Your task to perform on an android device: When is my next appointment? Image 0: 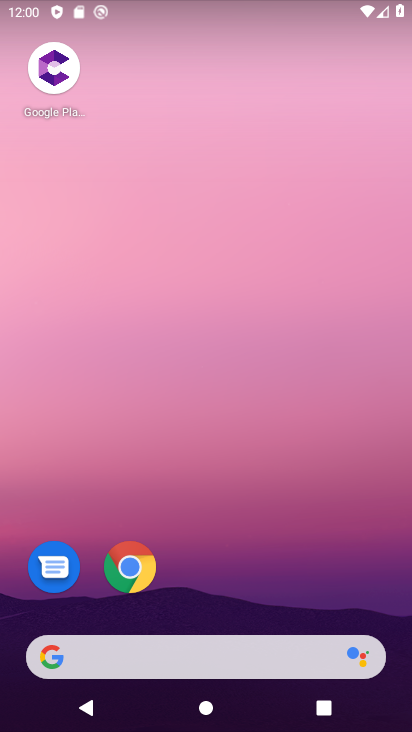
Step 0: drag from (207, 611) to (232, 195)
Your task to perform on an android device: When is my next appointment? Image 1: 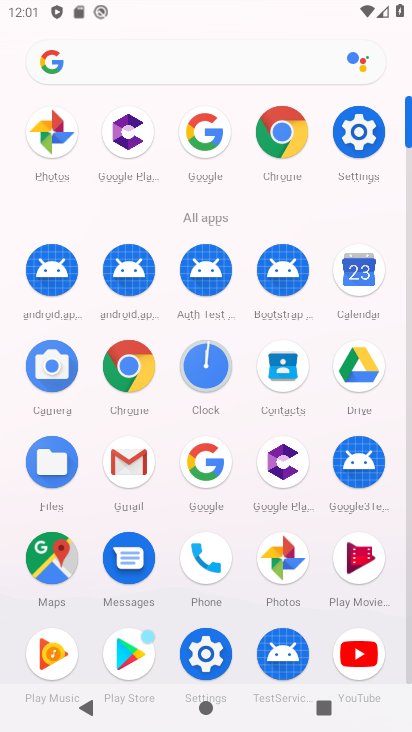
Step 1: click (341, 272)
Your task to perform on an android device: When is my next appointment? Image 2: 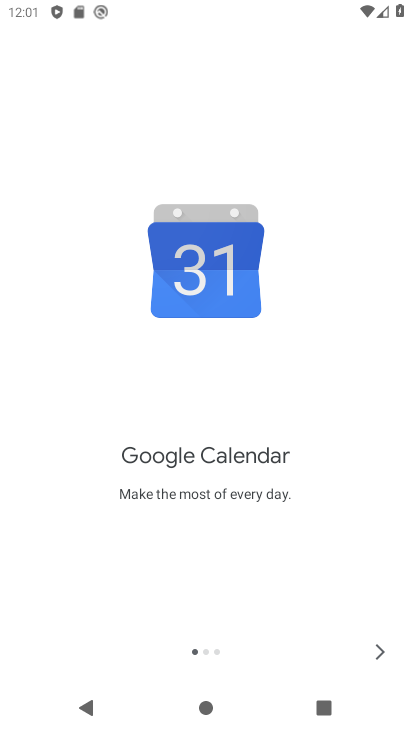
Step 2: click (381, 657)
Your task to perform on an android device: When is my next appointment? Image 3: 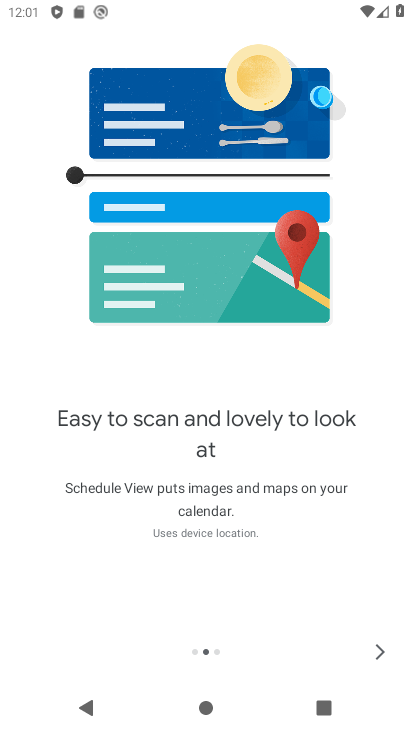
Step 3: click (380, 655)
Your task to perform on an android device: When is my next appointment? Image 4: 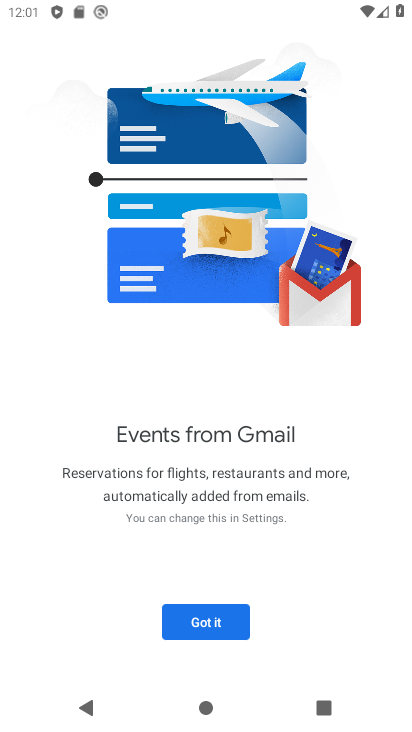
Step 4: click (230, 632)
Your task to perform on an android device: When is my next appointment? Image 5: 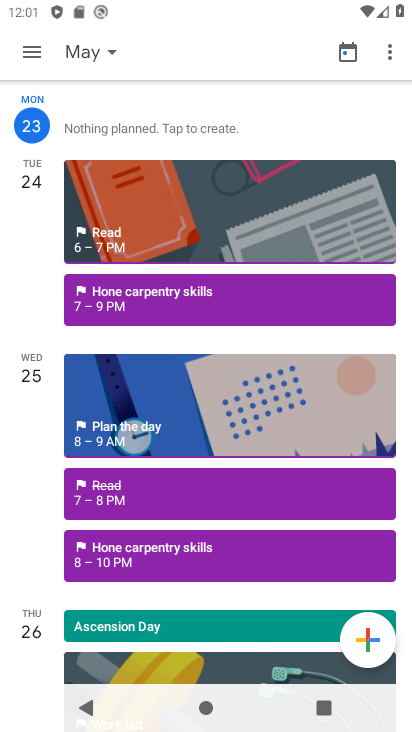
Step 5: task complete